Your task to perform on an android device: set an alarm Image 0: 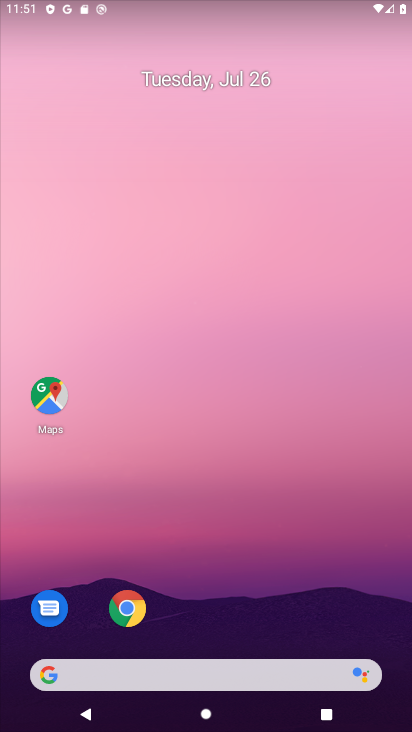
Step 0: drag from (188, 678) to (314, 148)
Your task to perform on an android device: set an alarm Image 1: 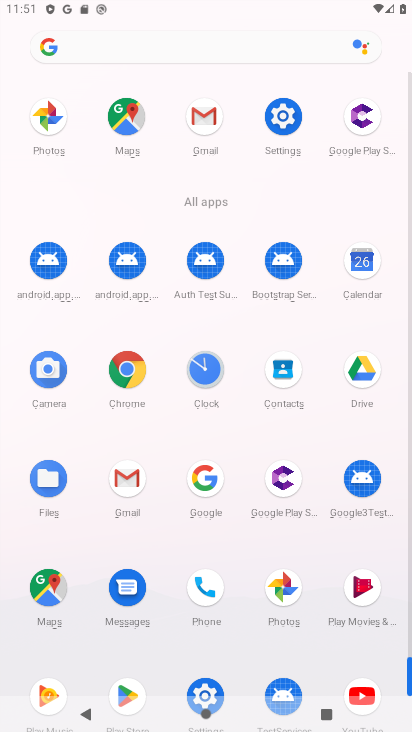
Step 1: click (204, 368)
Your task to perform on an android device: set an alarm Image 2: 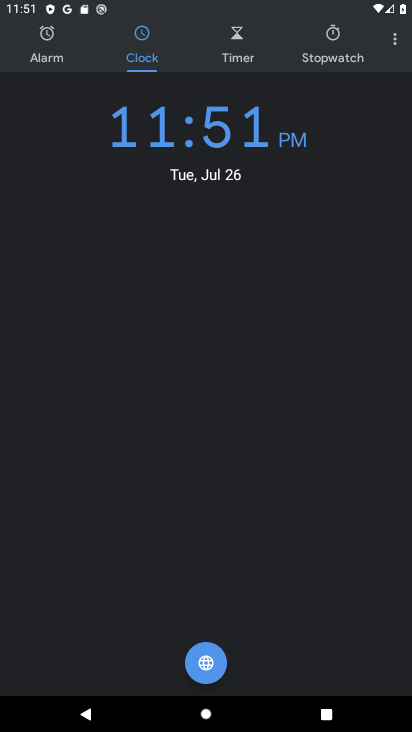
Step 2: click (47, 36)
Your task to perform on an android device: set an alarm Image 3: 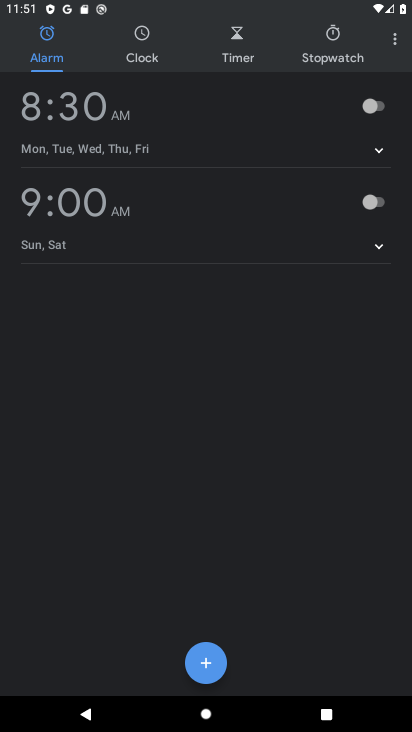
Step 3: click (209, 661)
Your task to perform on an android device: set an alarm Image 4: 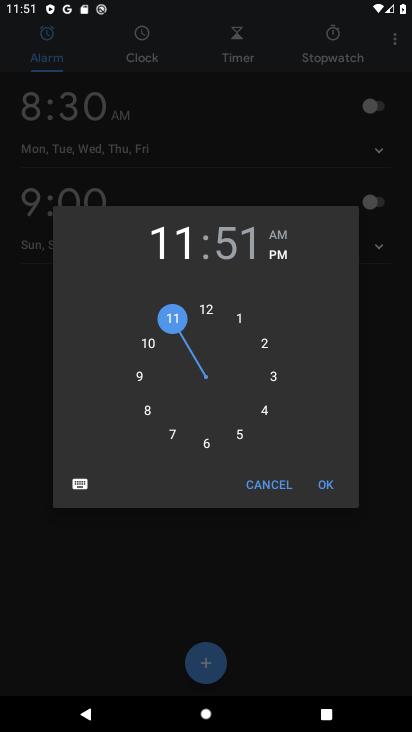
Step 4: click (138, 371)
Your task to perform on an android device: set an alarm Image 5: 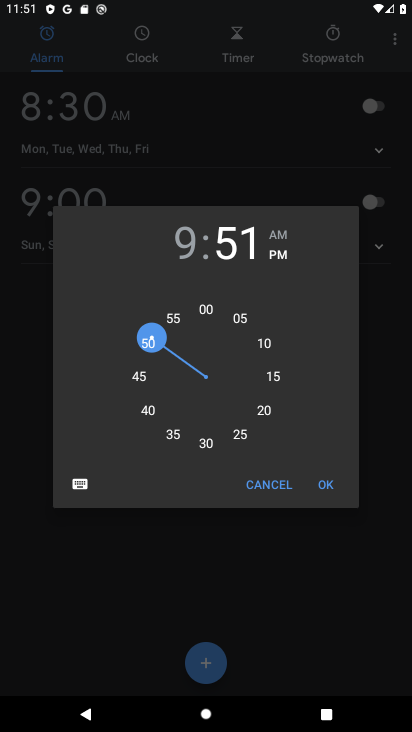
Step 5: click (263, 387)
Your task to perform on an android device: set an alarm Image 6: 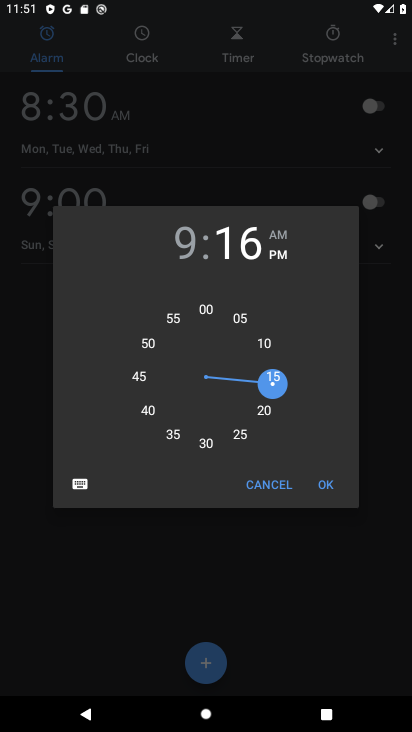
Step 6: click (272, 237)
Your task to perform on an android device: set an alarm Image 7: 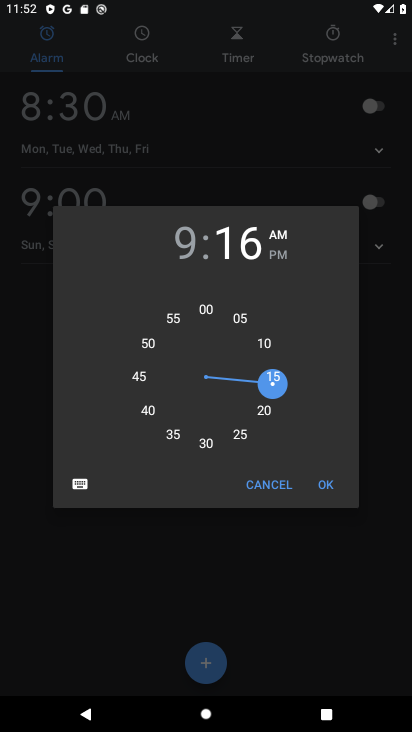
Step 7: click (324, 483)
Your task to perform on an android device: set an alarm Image 8: 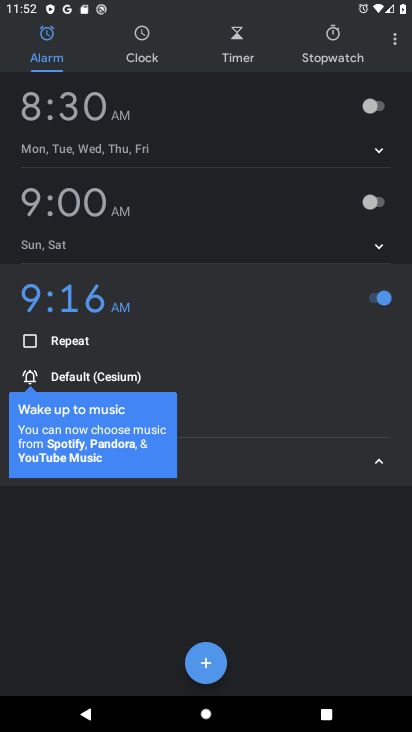
Step 8: click (387, 467)
Your task to perform on an android device: set an alarm Image 9: 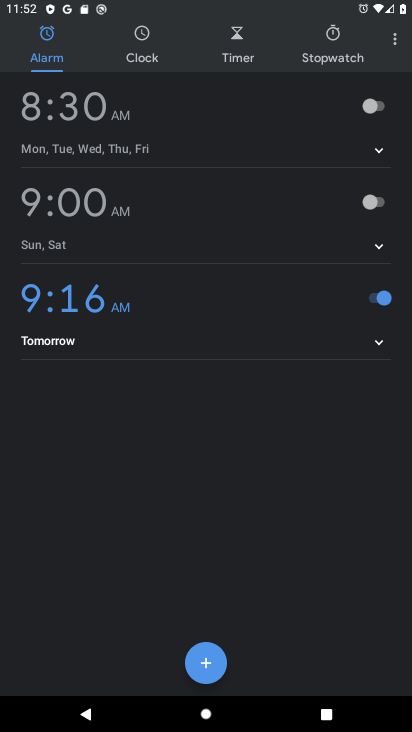
Step 9: task complete